Your task to perform on an android device: Open calendar and show me the third week of next month Image 0: 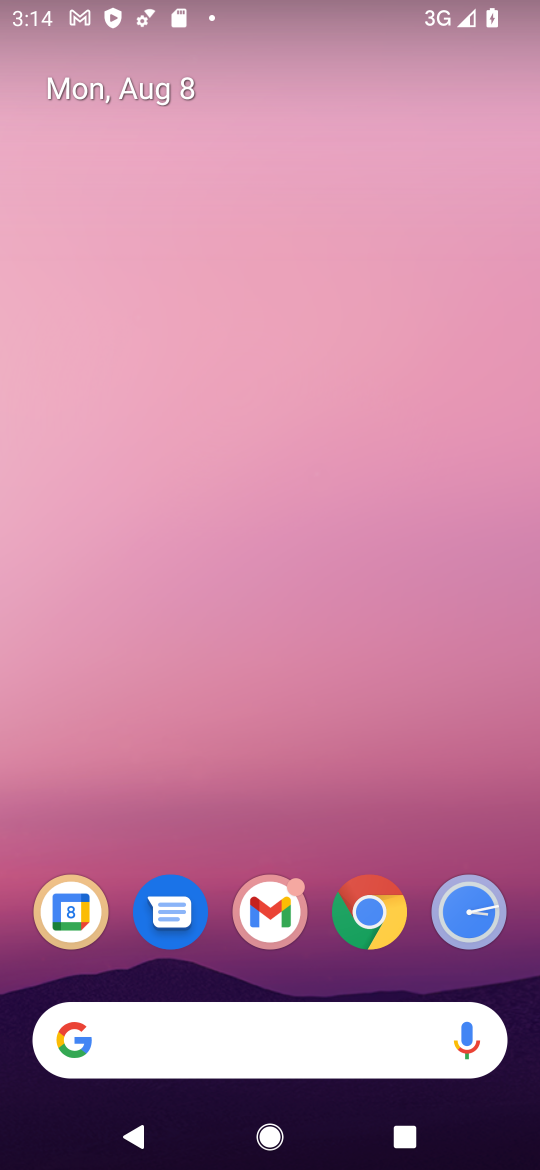
Step 0: task complete